Your task to perform on an android device: open wifi settings Image 0: 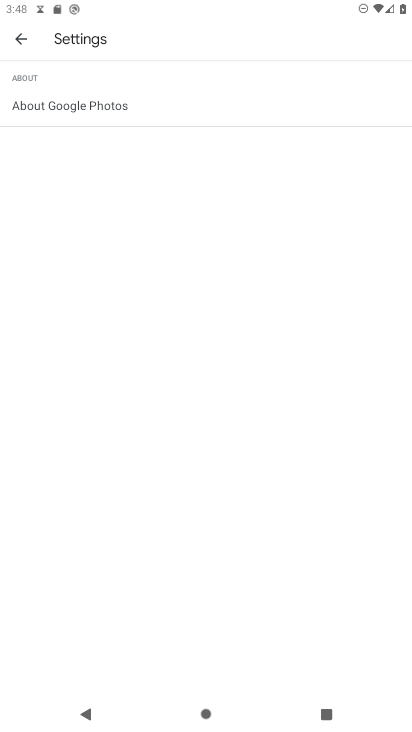
Step 0: press home button
Your task to perform on an android device: open wifi settings Image 1: 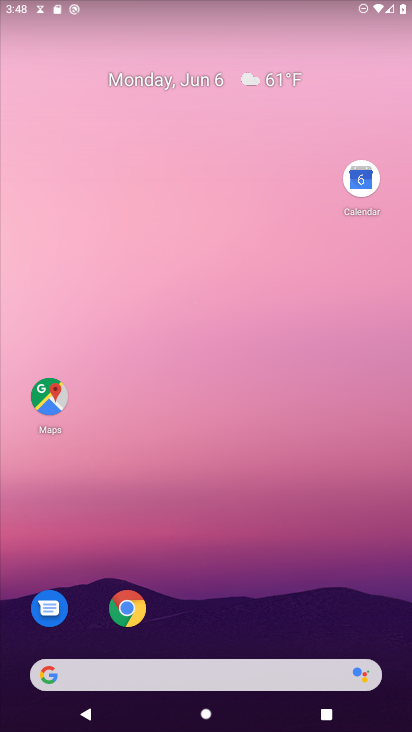
Step 1: drag from (223, 614) to (227, 43)
Your task to perform on an android device: open wifi settings Image 2: 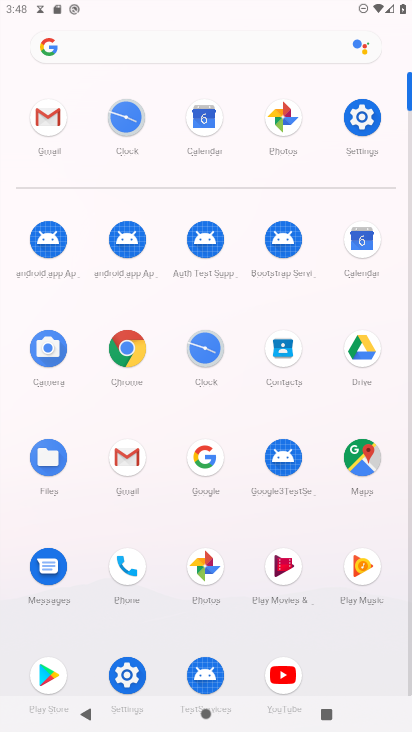
Step 2: click (370, 109)
Your task to perform on an android device: open wifi settings Image 3: 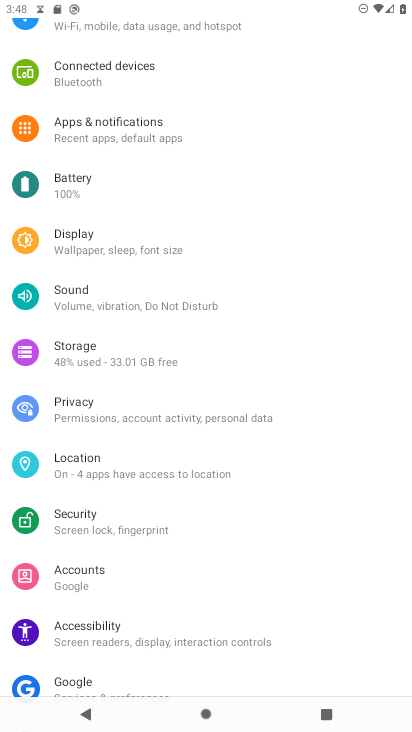
Step 3: drag from (169, 161) to (252, 731)
Your task to perform on an android device: open wifi settings Image 4: 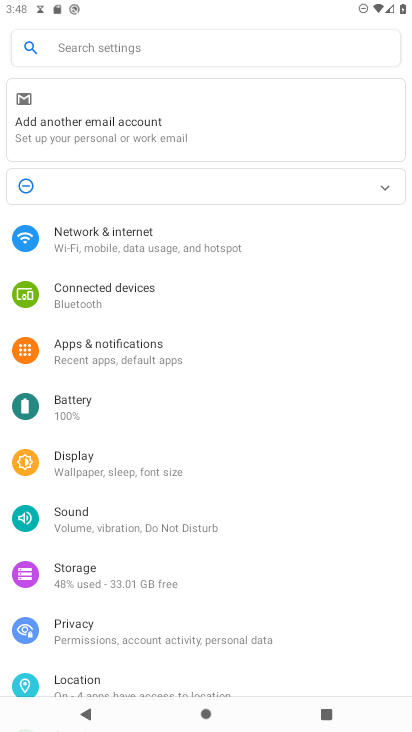
Step 4: click (159, 243)
Your task to perform on an android device: open wifi settings Image 5: 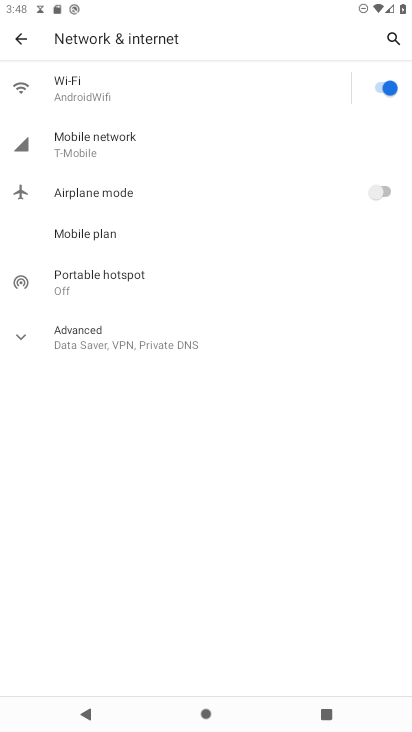
Step 5: click (95, 91)
Your task to perform on an android device: open wifi settings Image 6: 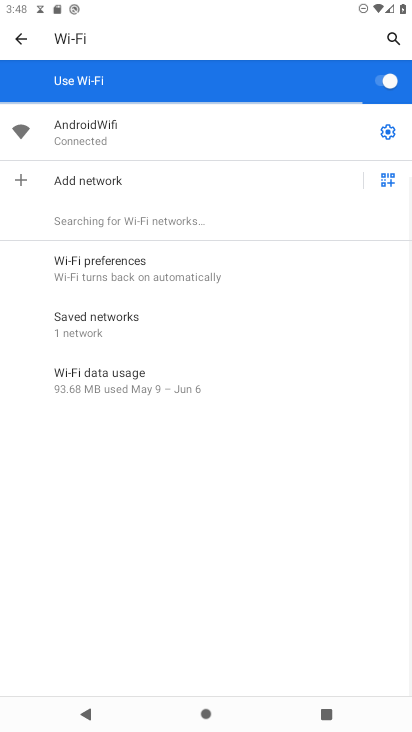
Step 6: task complete